Your task to perform on an android device: When is my next meeting? Image 0: 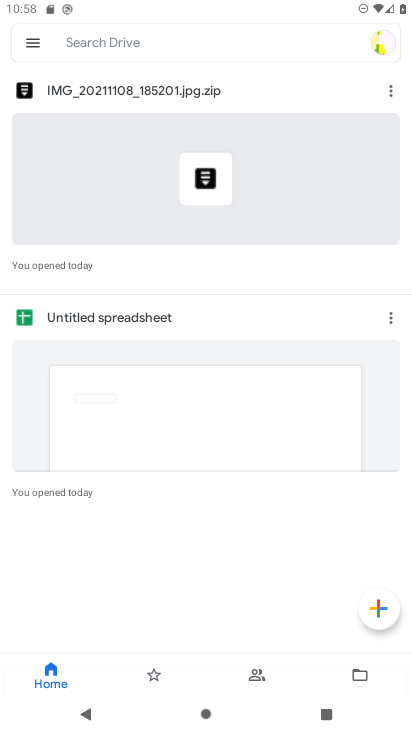
Step 0: press home button
Your task to perform on an android device: When is my next meeting? Image 1: 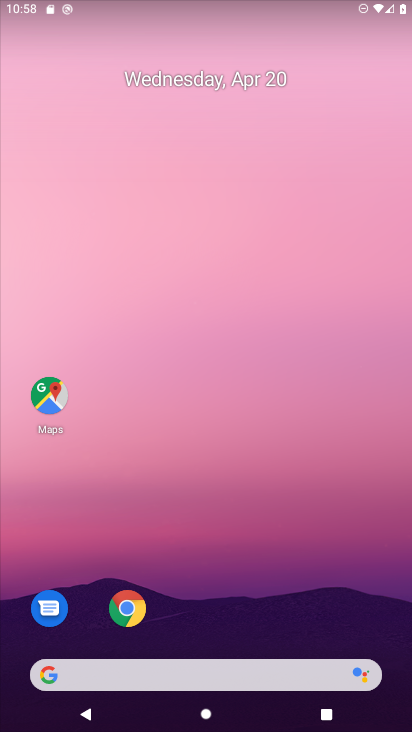
Step 1: drag from (262, 622) to (282, 43)
Your task to perform on an android device: When is my next meeting? Image 2: 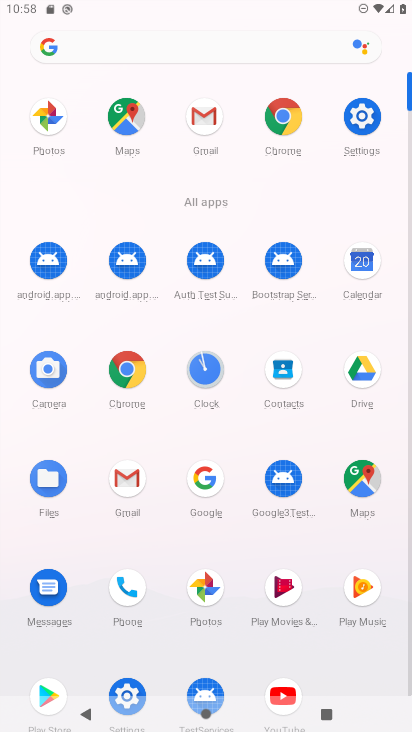
Step 2: click (355, 264)
Your task to perform on an android device: When is my next meeting? Image 3: 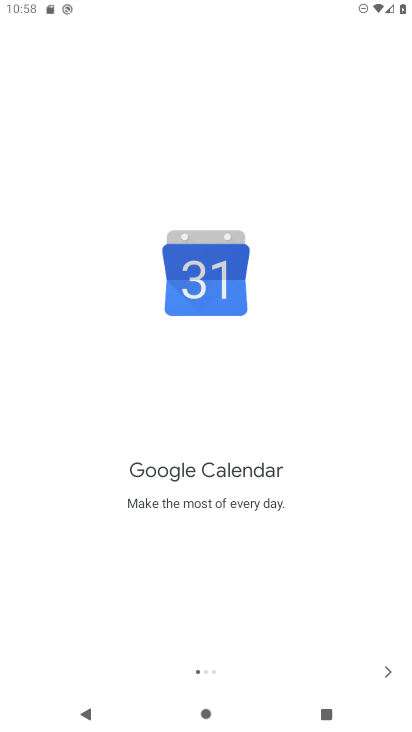
Step 3: click (380, 667)
Your task to perform on an android device: When is my next meeting? Image 4: 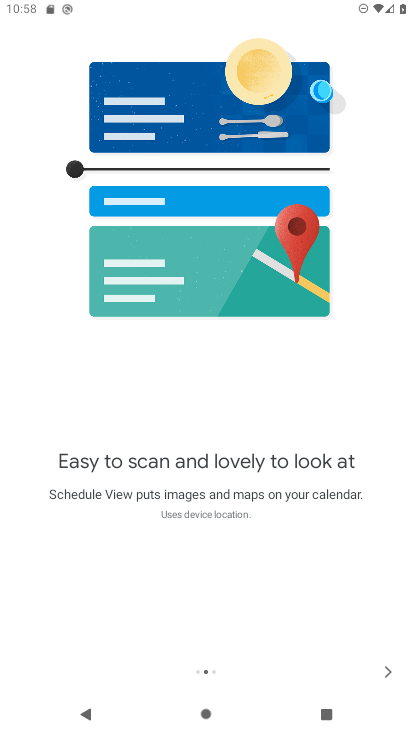
Step 4: click (385, 673)
Your task to perform on an android device: When is my next meeting? Image 5: 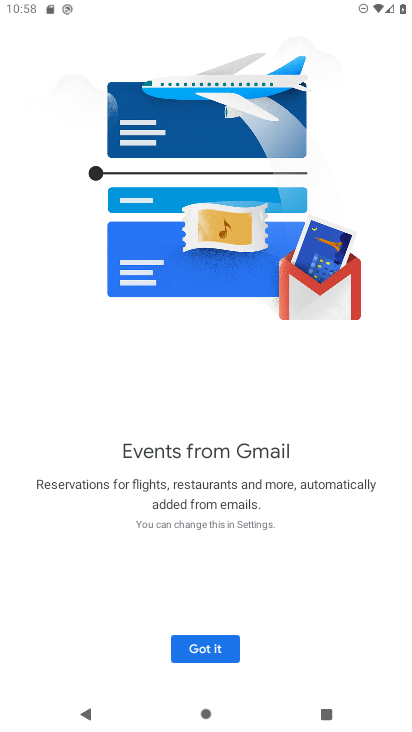
Step 5: click (234, 652)
Your task to perform on an android device: When is my next meeting? Image 6: 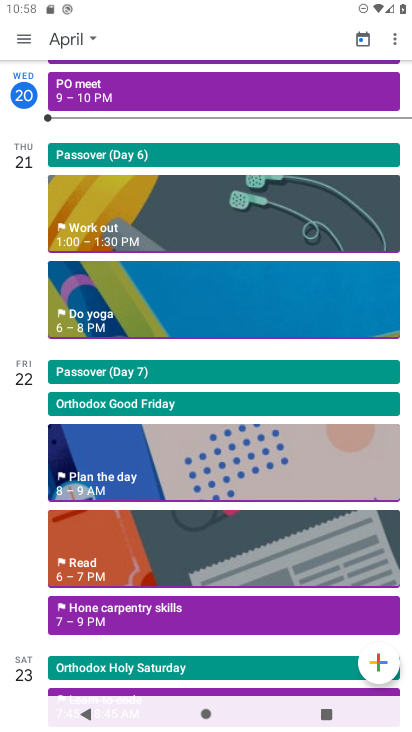
Step 6: click (77, 39)
Your task to perform on an android device: When is my next meeting? Image 7: 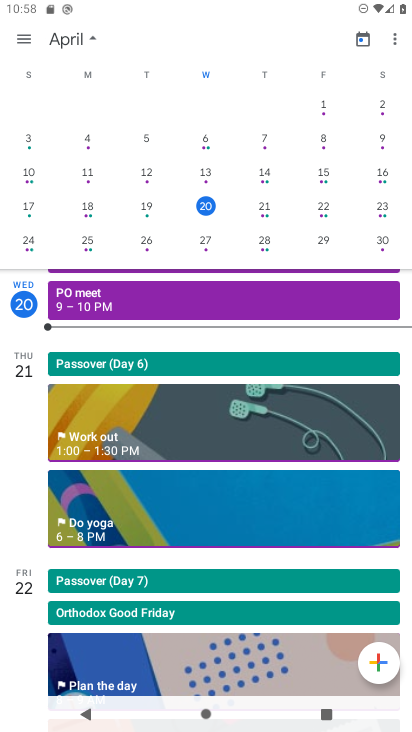
Step 7: click (210, 210)
Your task to perform on an android device: When is my next meeting? Image 8: 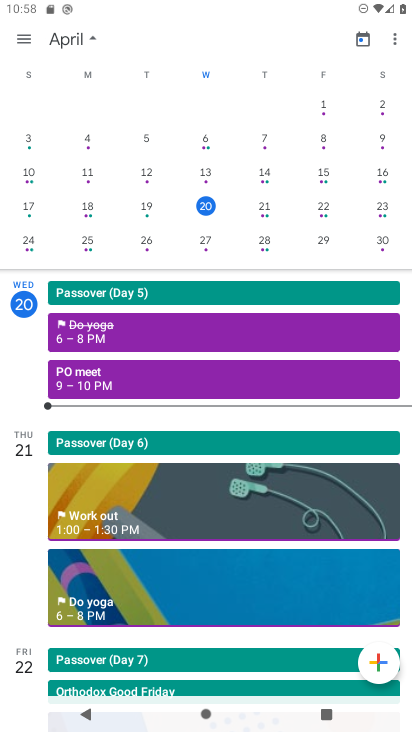
Step 8: task complete